Your task to perform on an android device: turn on airplane mode Image 0: 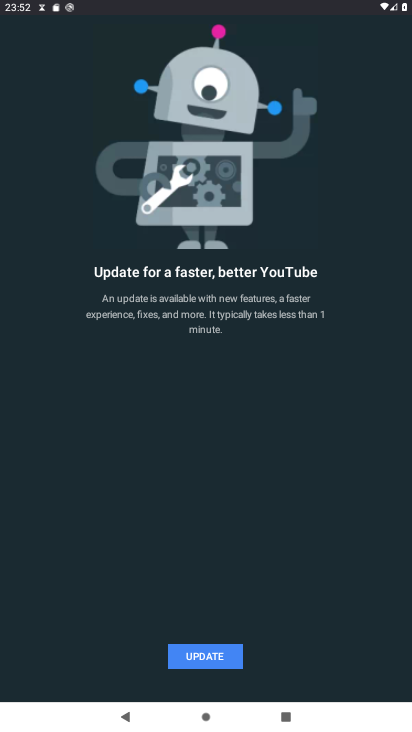
Step 0: press home button
Your task to perform on an android device: turn on airplane mode Image 1: 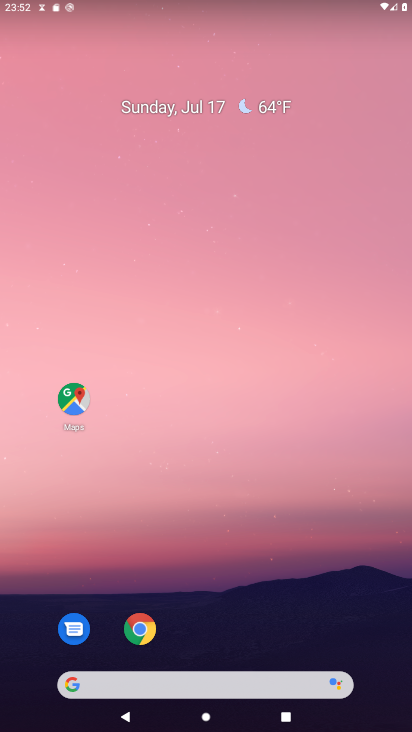
Step 1: drag from (286, 630) to (307, 225)
Your task to perform on an android device: turn on airplane mode Image 2: 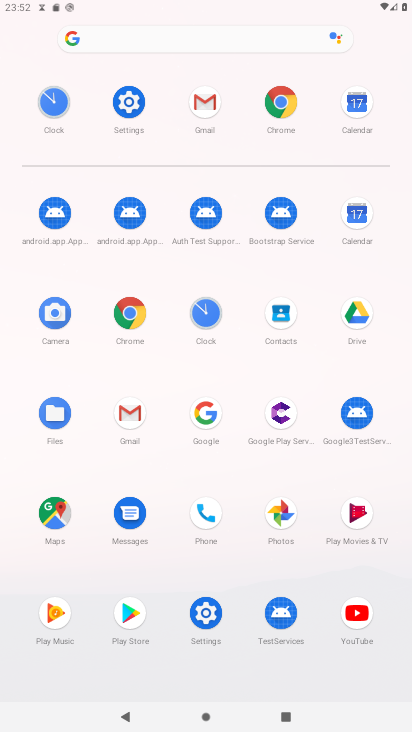
Step 2: click (137, 93)
Your task to perform on an android device: turn on airplane mode Image 3: 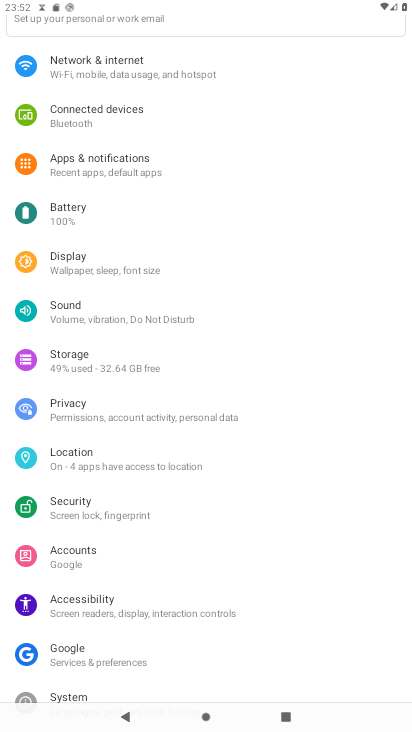
Step 3: drag from (117, 45) to (150, 324)
Your task to perform on an android device: turn on airplane mode Image 4: 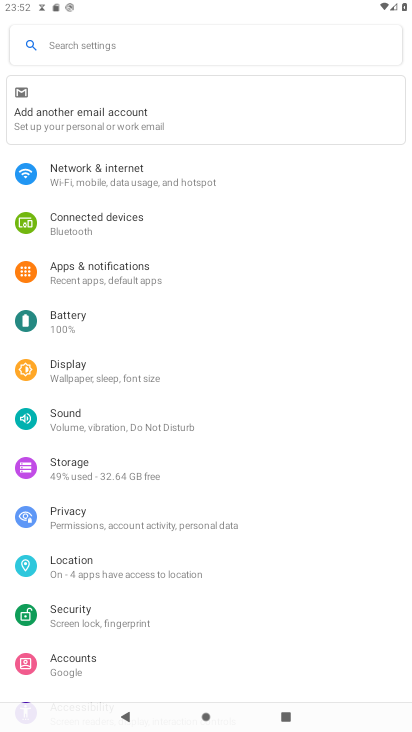
Step 4: click (128, 179)
Your task to perform on an android device: turn on airplane mode Image 5: 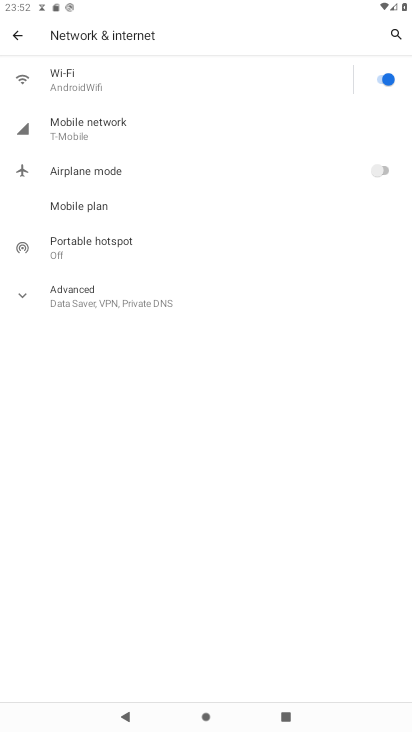
Step 5: click (112, 167)
Your task to perform on an android device: turn on airplane mode Image 6: 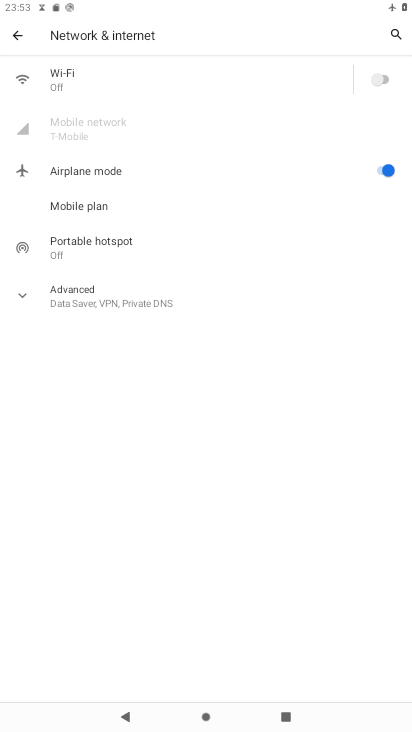
Step 6: task complete